Your task to perform on an android device: toggle airplane mode Image 0: 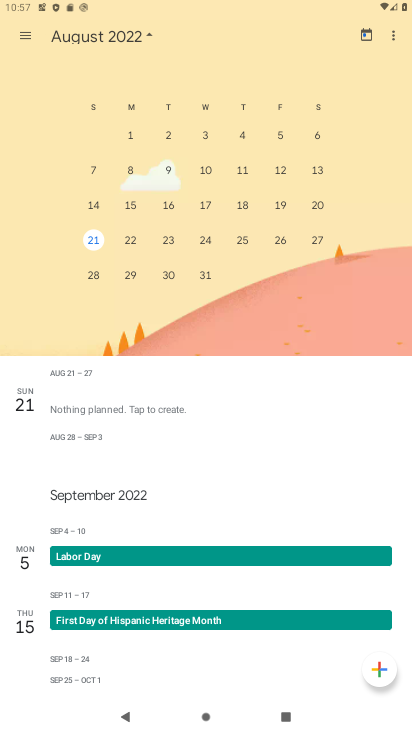
Step 0: press home button
Your task to perform on an android device: toggle airplane mode Image 1: 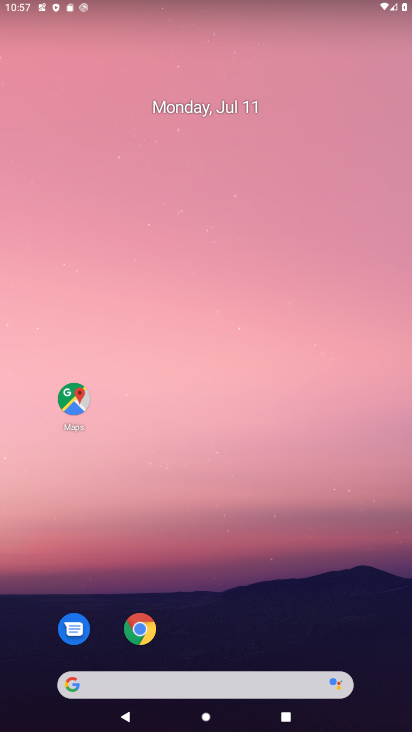
Step 1: drag from (245, 633) to (278, 251)
Your task to perform on an android device: toggle airplane mode Image 2: 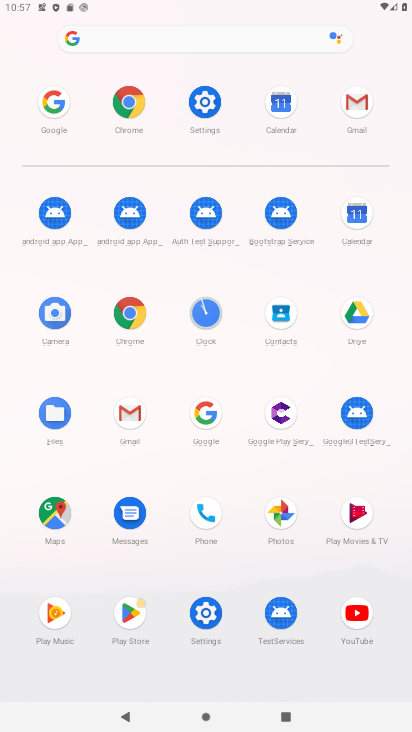
Step 2: click (193, 121)
Your task to perform on an android device: toggle airplane mode Image 3: 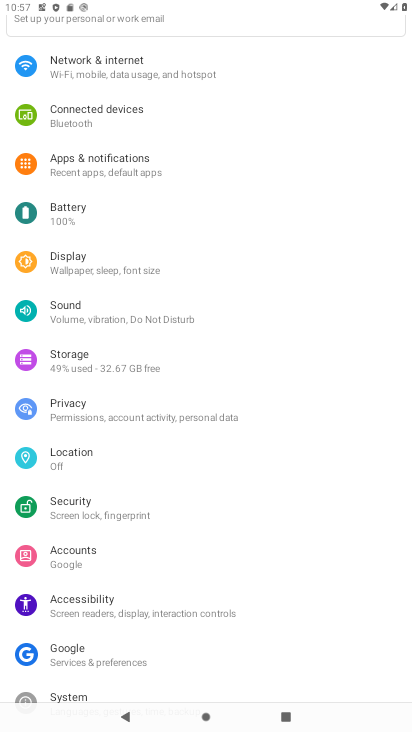
Step 3: click (128, 70)
Your task to perform on an android device: toggle airplane mode Image 4: 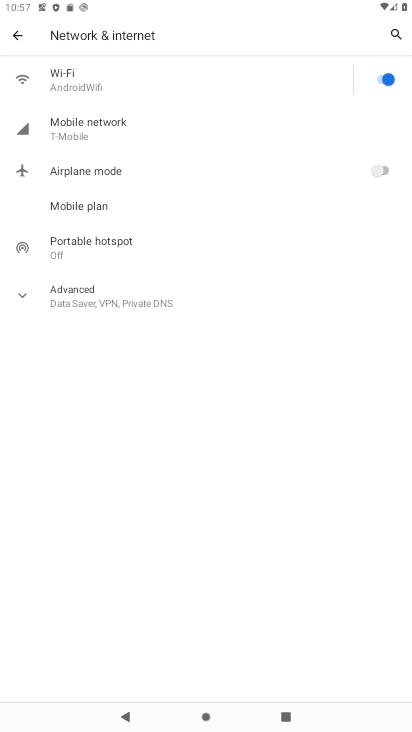
Step 4: click (389, 176)
Your task to perform on an android device: toggle airplane mode Image 5: 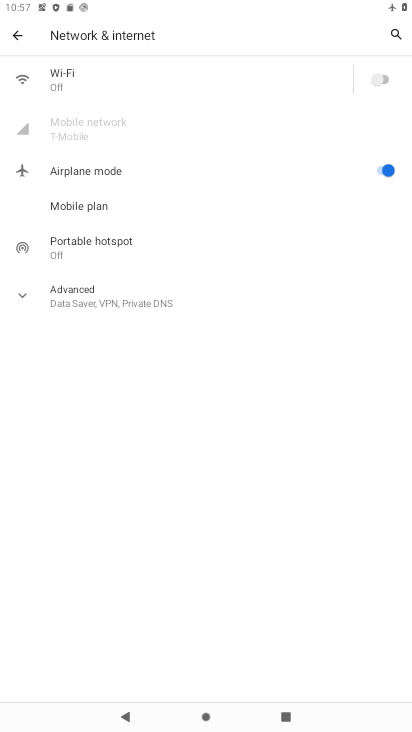
Step 5: task complete